Your task to perform on an android device: Is it going to rain today? Image 0: 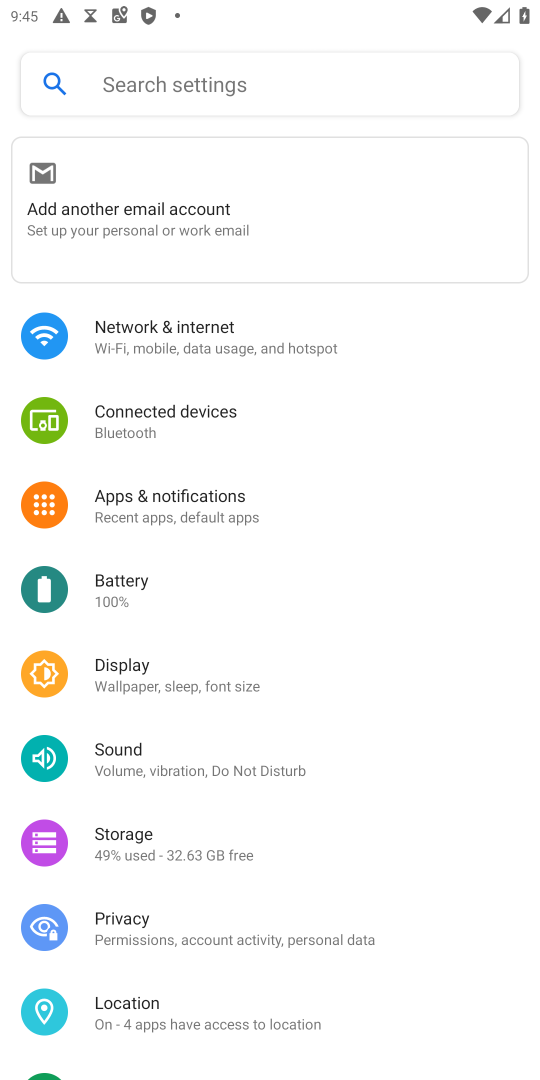
Step 0: press home button
Your task to perform on an android device: Is it going to rain today? Image 1: 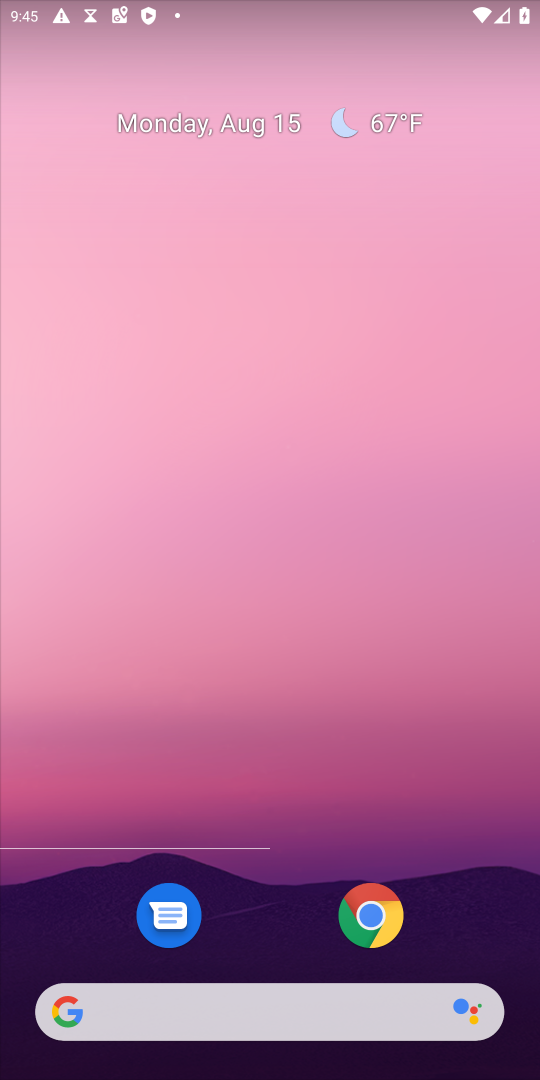
Step 1: click (59, 1014)
Your task to perform on an android device: Is it going to rain today? Image 2: 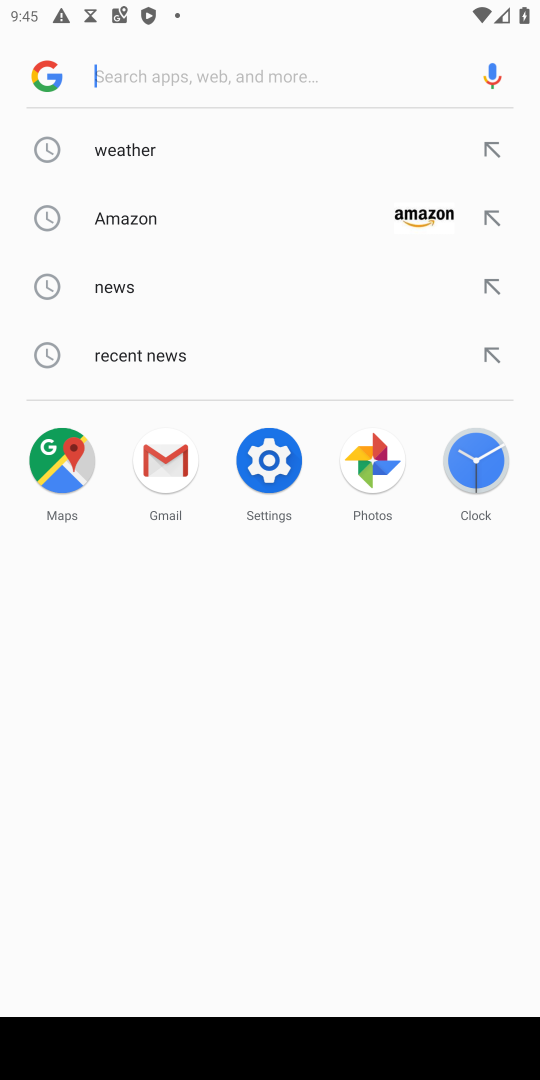
Step 2: click (183, 83)
Your task to perform on an android device: Is it going to rain today? Image 3: 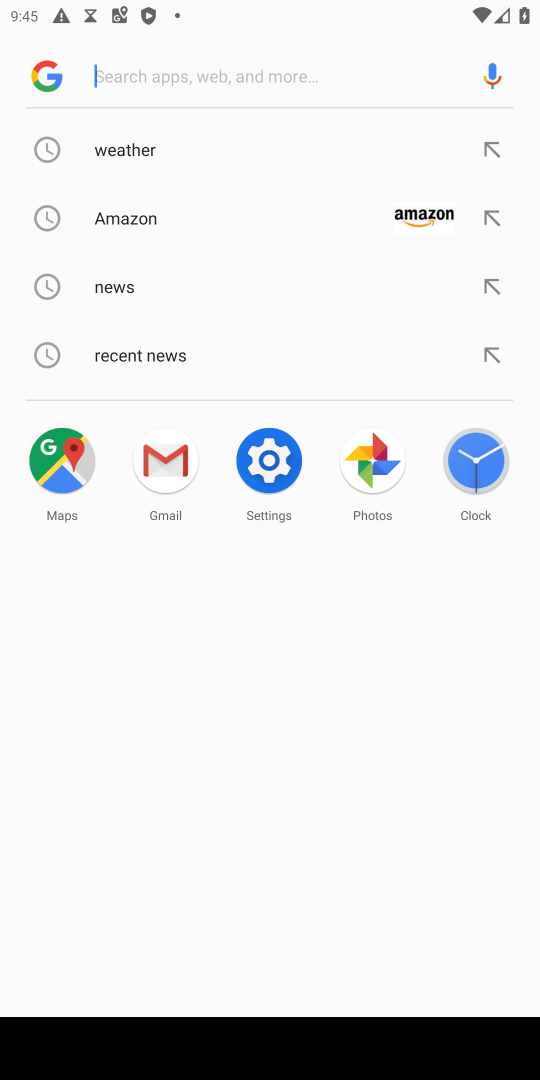
Step 3: type "Is it going to rain today?"
Your task to perform on an android device: Is it going to rain today? Image 4: 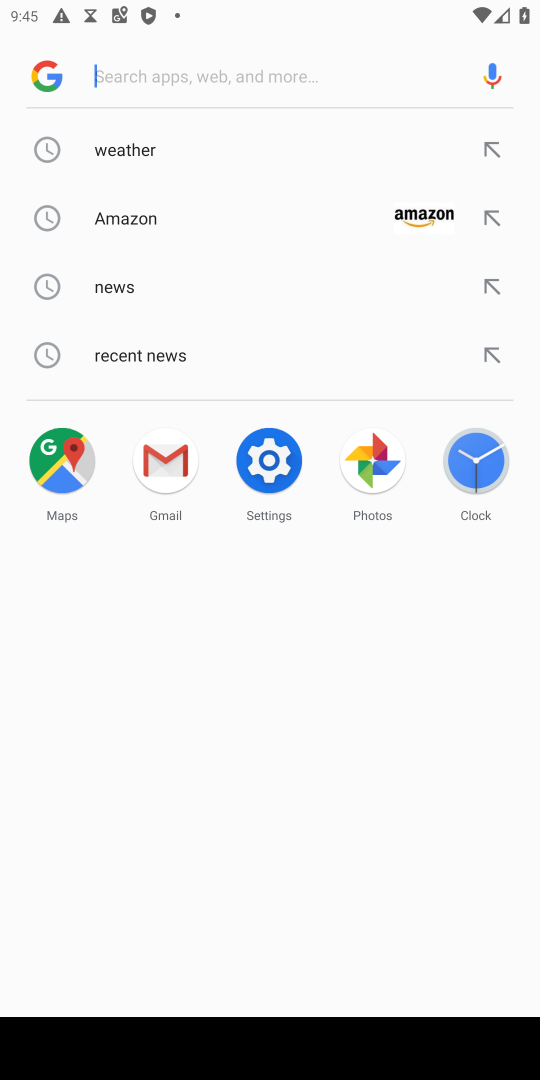
Step 4: drag from (183, 83) to (236, 85)
Your task to perform on an android device: Is it going to rain today? Image 5: 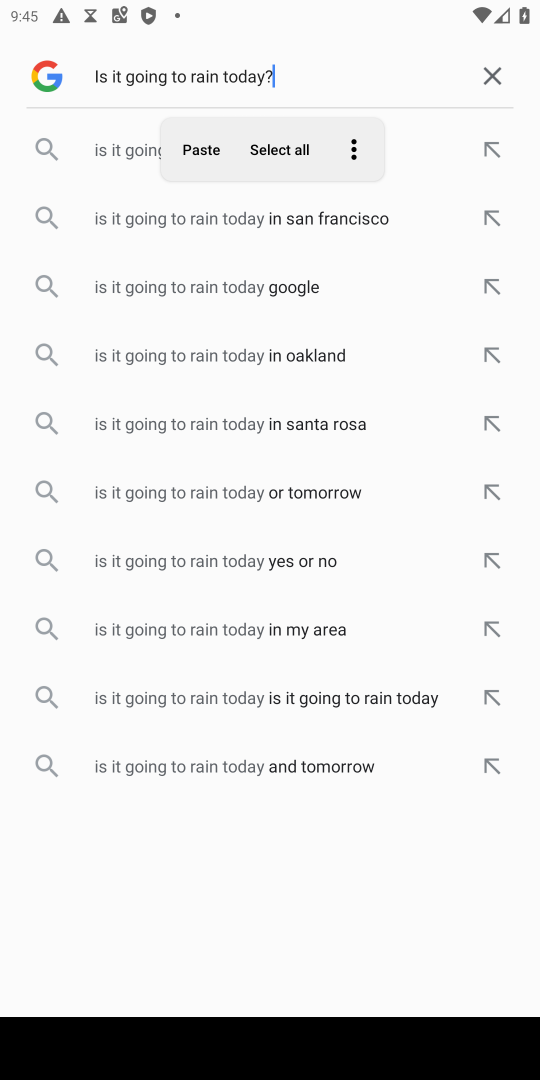
Step 5: press enter
Your task to perform on an android device: Is it going to rain today? Image 6: 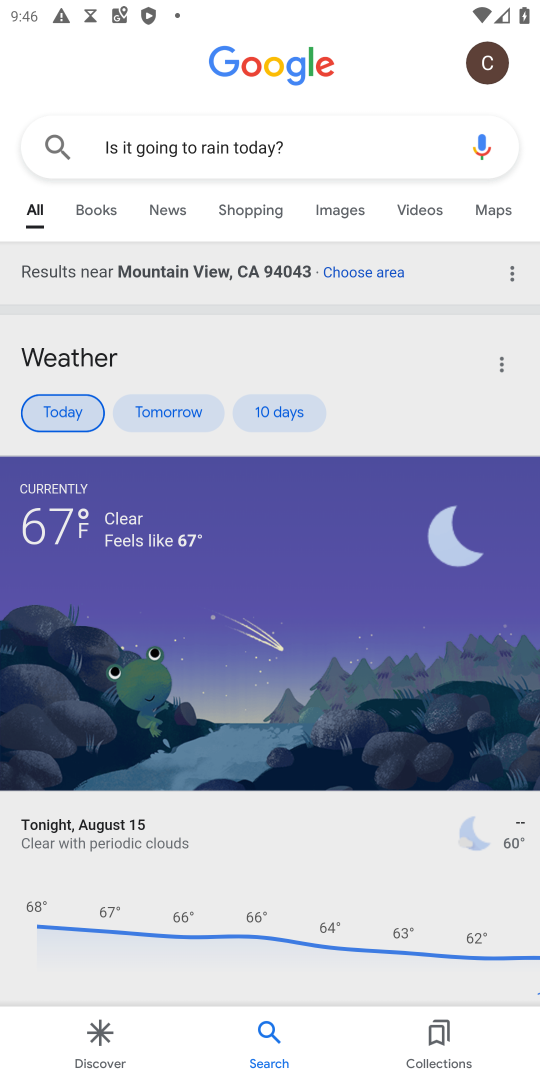
Step 6: task complete